Your task to perform on an android device: toggle improve location accuracy Image 0: 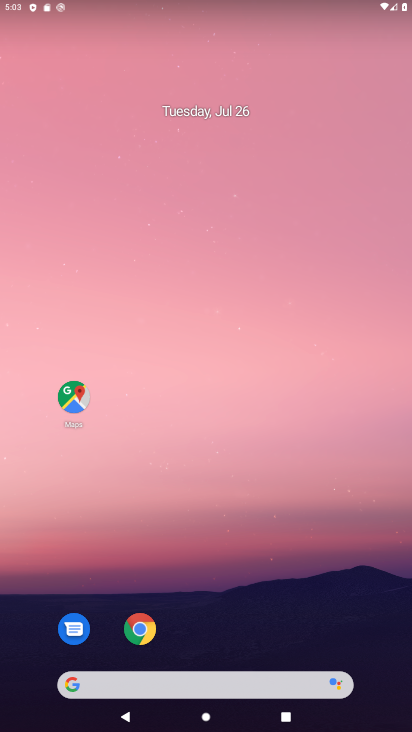
Step 0: drag from (184, 643) to (242, 110)
Your task to perform on an android device: toggle improve location accuracy Image 1: 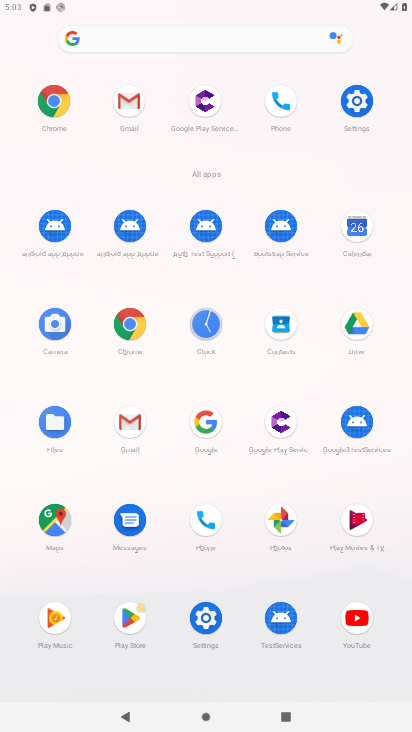
Step 1: click (358, 107)
Your task to perform on an android device: toggle improve location accuracy Image 2: 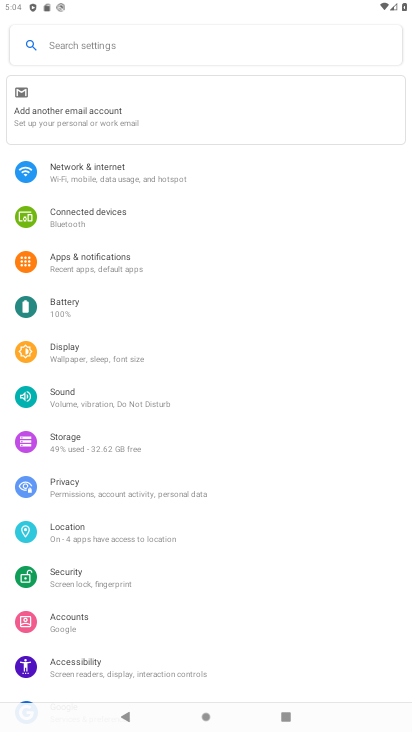
Step 2: click (129, 532)
Your task to perform on an android device: toggle improve location accuracy Image 3: 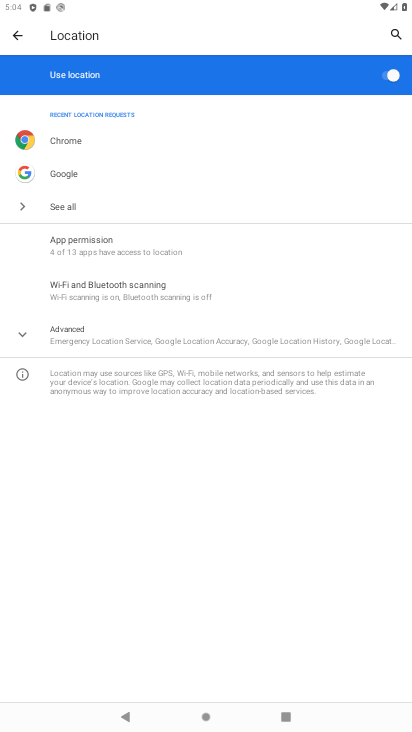
Step 3: click (71, 334)
Your task to perform on an android device: toggle improve location accuracy Image 4: 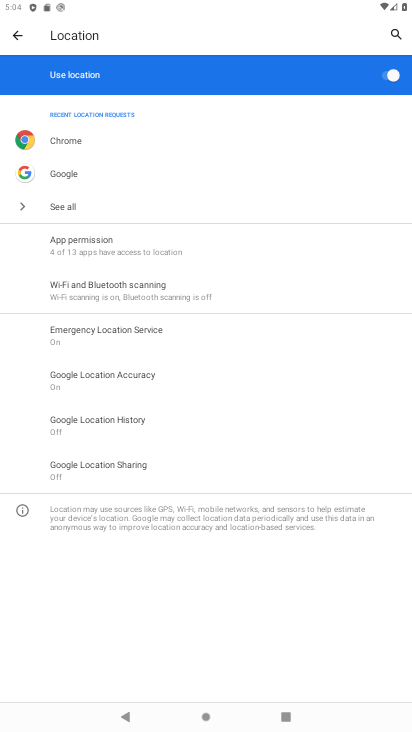
Step 4: click (116, 372)
Your task to perform on an android device: toggle improve location accuracy Image 5: 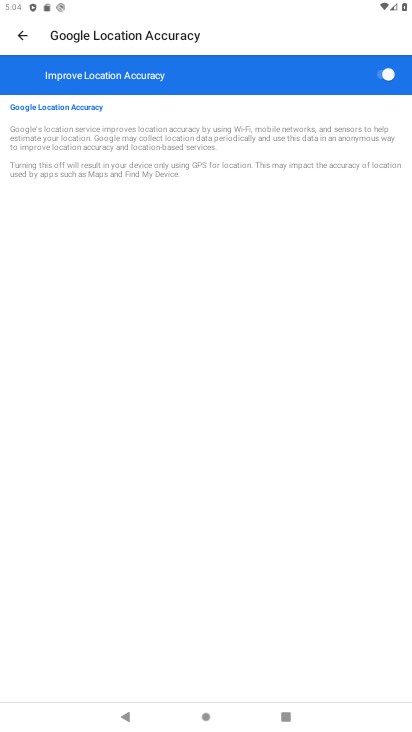
Step 5: task complete